Your task to perform on an android device: Open Maps and search for coffee Image 0: 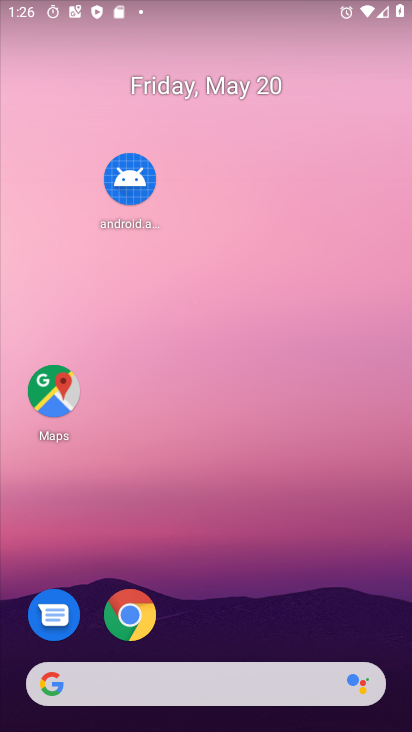
Step 0: click (38, 386)
Your task to perform on an android device: Open Maps and search for coffee Image 1: 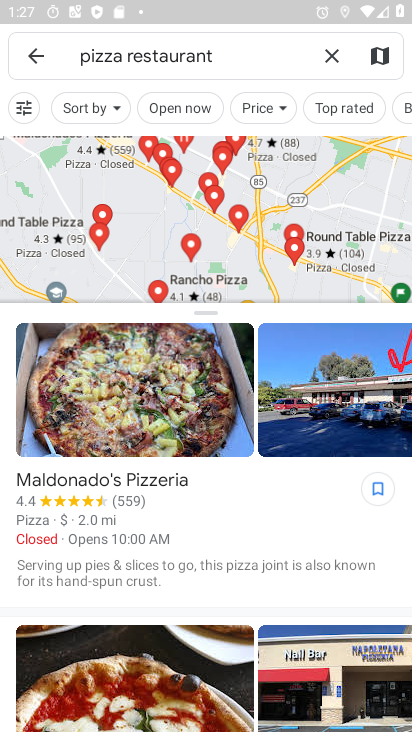
Step 1: click (34, 58)
Your task to perform on an android device: Open Maps and search for coffee Image 2: 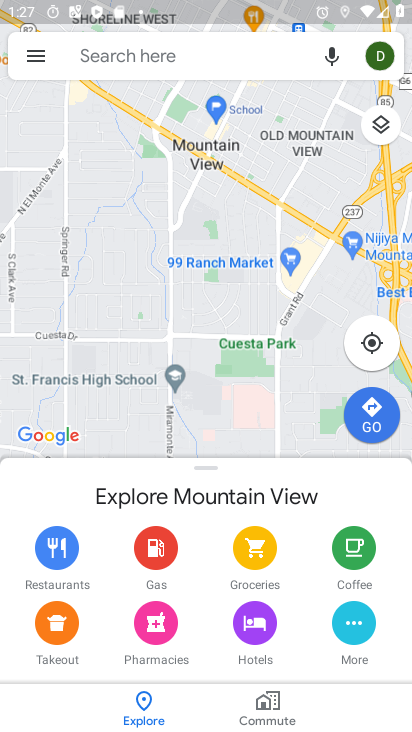
Step 2: click (122, 53)
Your task to perform on an android device: Open Maps and search for coffee Image 3: 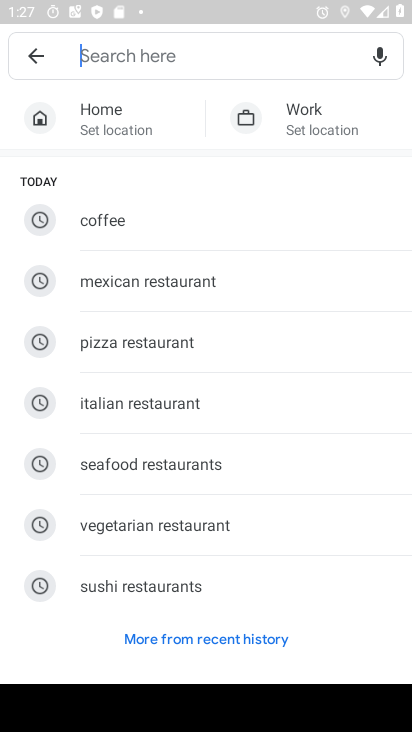
Step 3: click (193, 222)
Your task to perform on an android device: Open Maps and search for coffee Image 4: 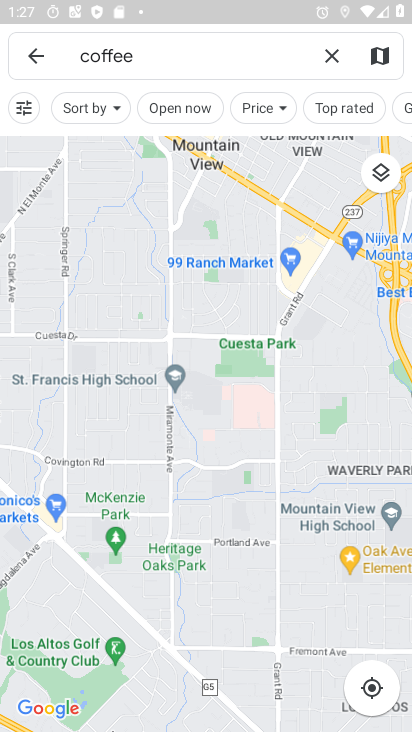
Step 4: task complete